Your task to perform on an android device: Set the phone to "Do not disturb". Image 0: 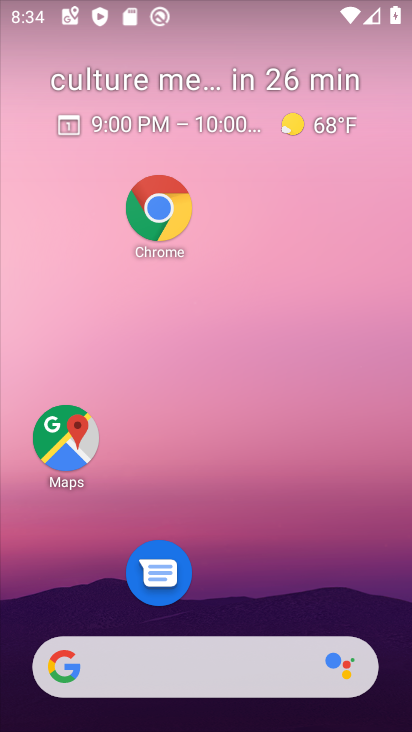
Step 0: drag from (262, 647) to (246, 20)
Your task to perform on an android device: Set the phone to "Do not disturb". Image 1: 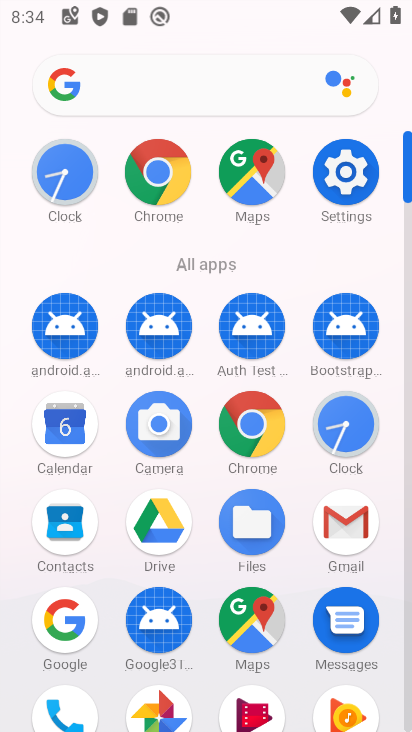
Step 1: click (350, 184)
Your task to perform on an android device: Set the phone to "Do not disturb". Image 2: 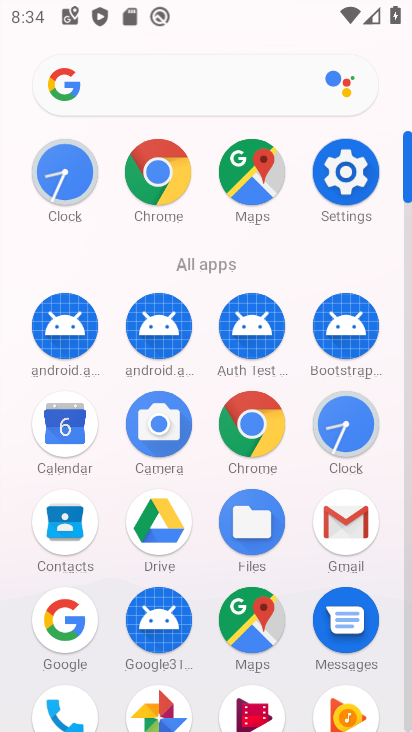
Step 2: click (350, 184)
Your task to perform on an android device: Set the phone to "Do not disturb". Image 3: 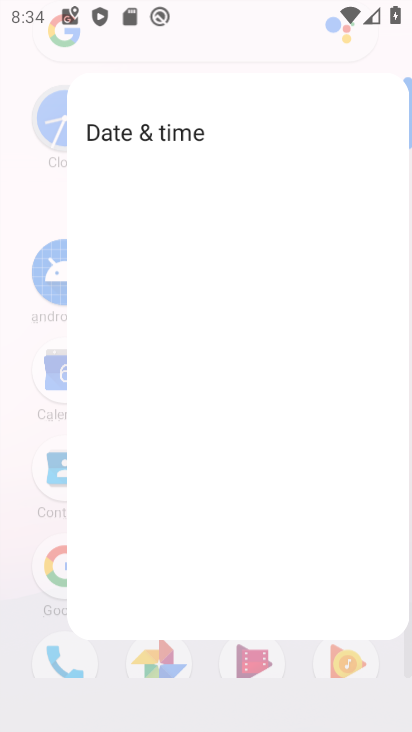
Step 3: click (350, 184)
Your task to perform on an android device: Set the phone to "Do not disturb". Image 4: 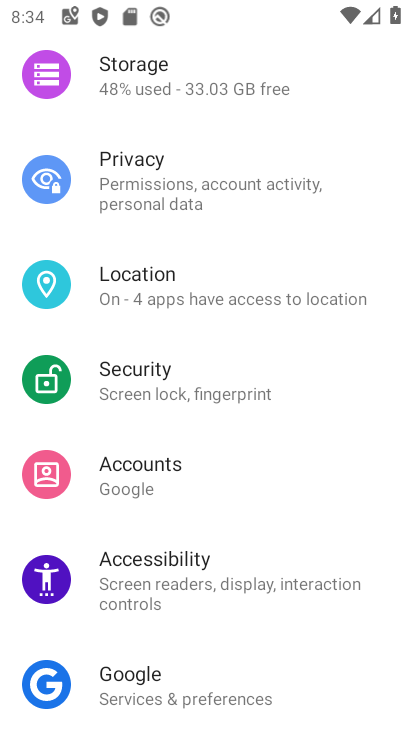
Step 4: click (350, 184)
Your task to perform on an android device: Set the phone to "Do not disturb". Image 5: 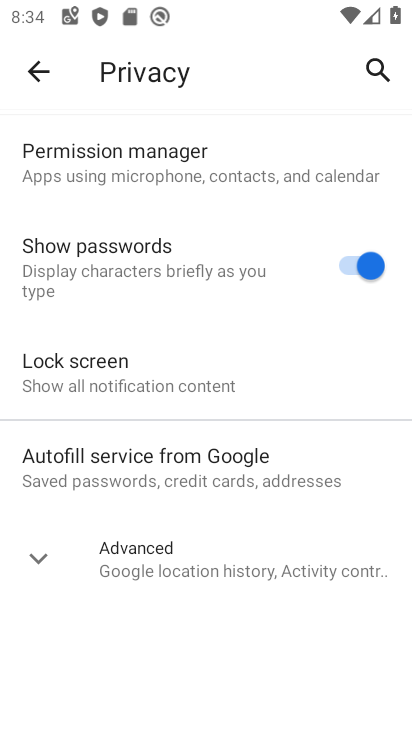
Step 5: click (32, 72)
Your task to perform on an android device: Set the phone to "Do not disturb". Image 6: 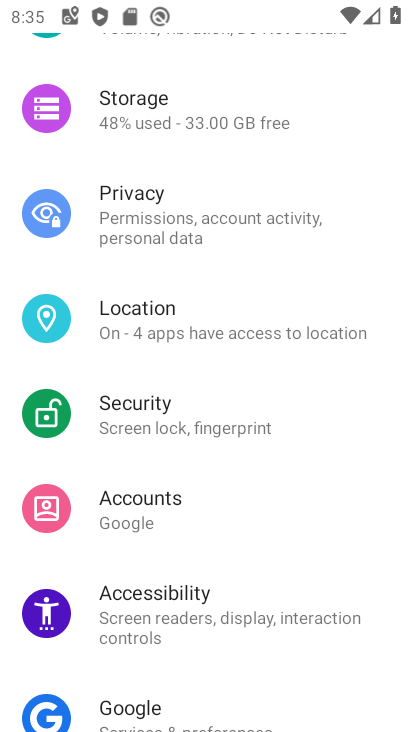
Step 6: drag from (169, 151) to (187, 200)
Your task to perform on an android device: Set the phone to "Do not disturb". Image 7: 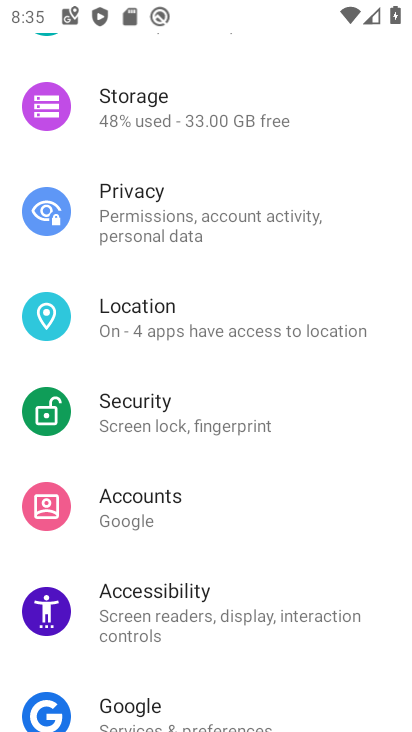
Step 7: click (260, 706)
Your task to perform on an android device: Set the phone to "Do not disturb". Image 8: 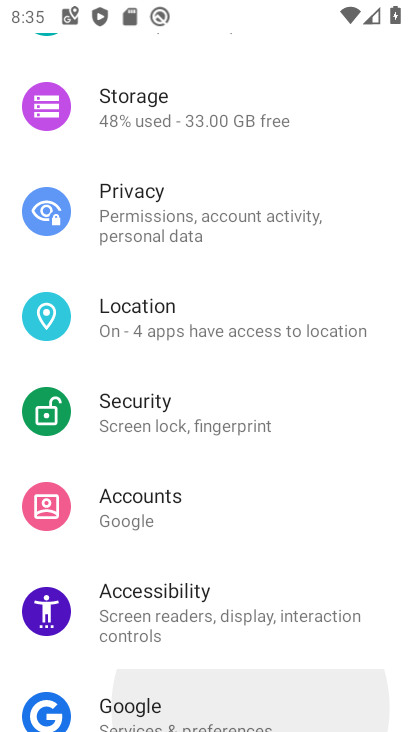
Step 8: click (223, 510)
Your task to perform on an android device: Set the phone to "Do not disturb". Image 9: 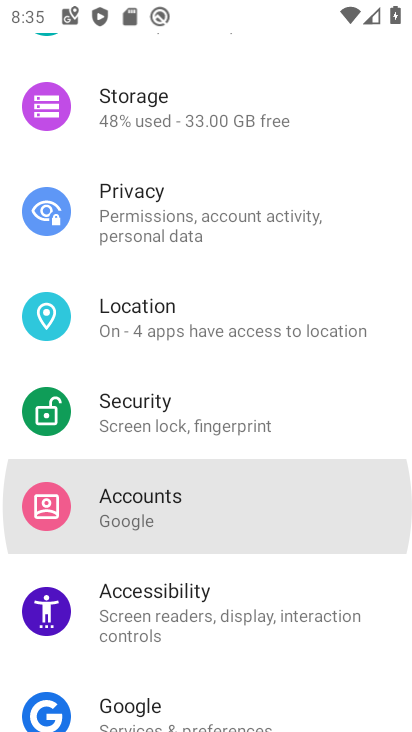
Step 9: drag from (190, 349) to (164, 85)
Your task to perform on an android device: Set the phone to "Do not disturb". Image 10: 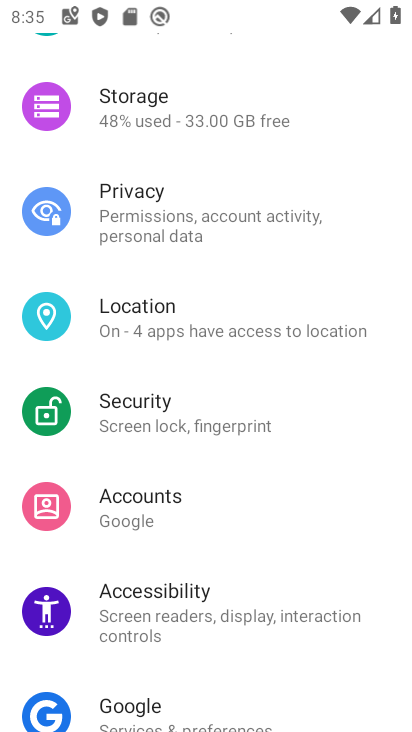
Step 10: drag from (115, 546) to (150, 198)
Your task to perform on an android device: Set the phone to "Do not disturb". Image 11: 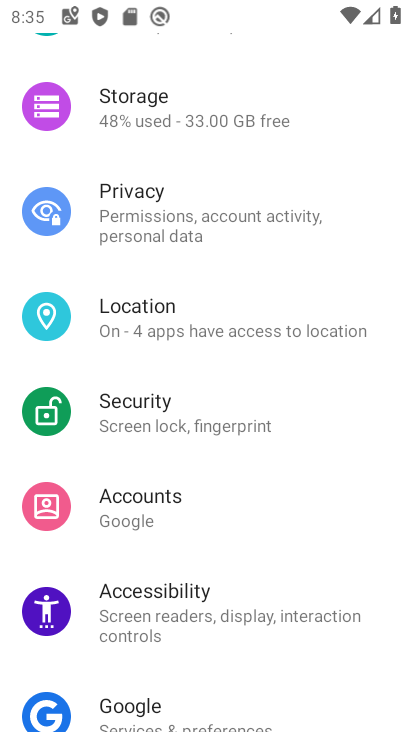
Step 11: drag from (218, 431) to (218, 205)
Your task to perform on an android device: Set the phone to "Do not disturb". Image 12: 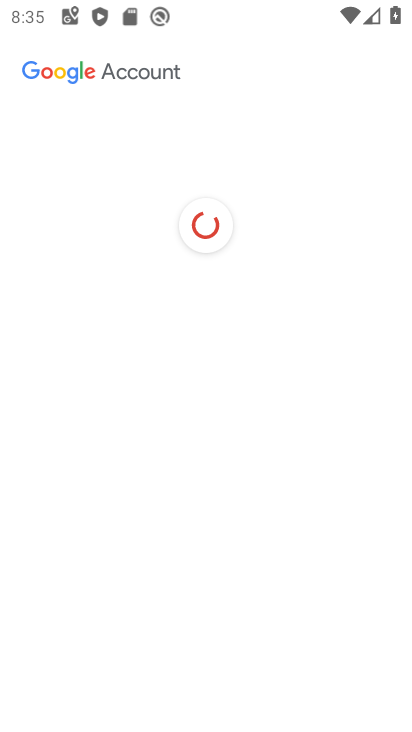
Step 12: press back button
Your task to perform on an android device: Set the phone to "Do not disturb". Image 13: 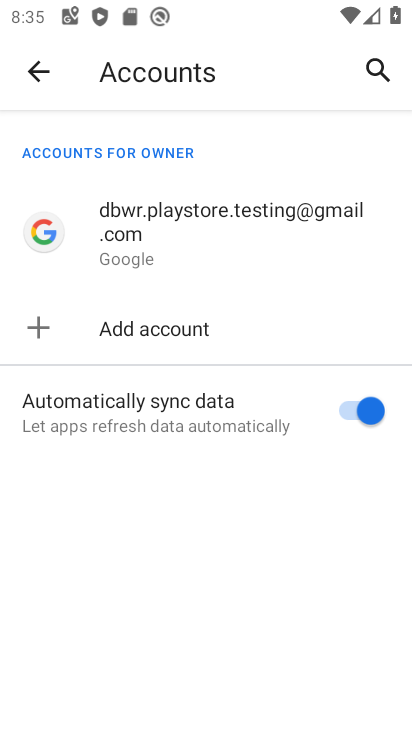
Step 13: press home button
Your task to perform on an android device: Set the phone to "Do not disturb". Image 14: 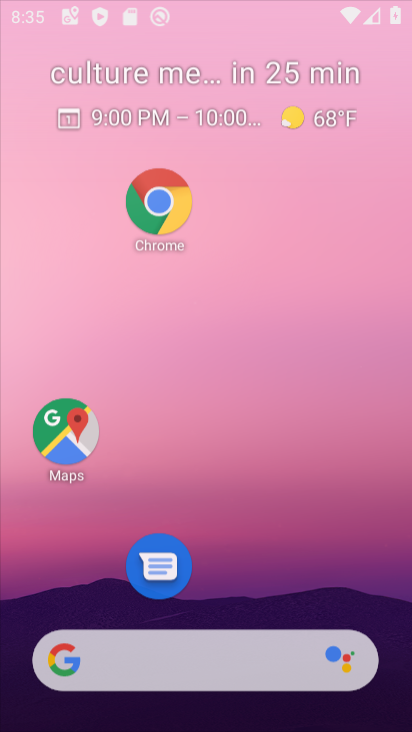
Step 14: click (20, 71)
Your task to perform on an android device: Set the phone to "Do not disturb". Image 15: 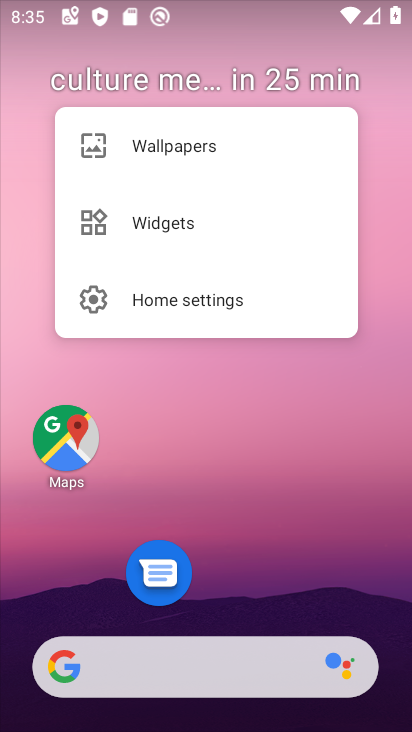
Step 15: drag from (230, 562) to (220, 90)
Your task to perform on an android device: Set the phone to "Do not disturb". Image 16: 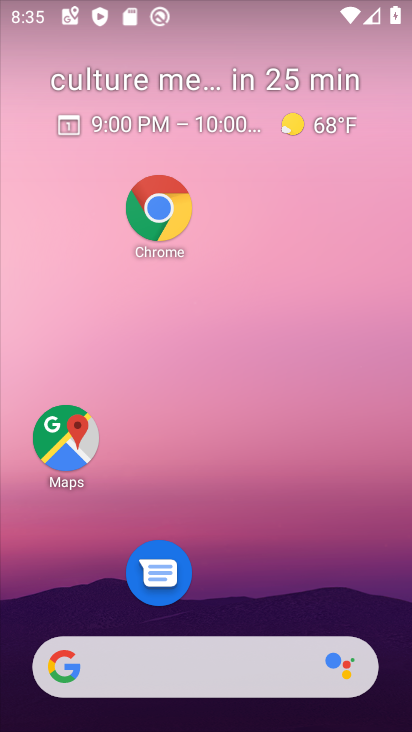
Step 16: drag from (232, 595) to (223, 103)
Your task to perform on an android device: Set the phone to "Do not disturb". Image 17: 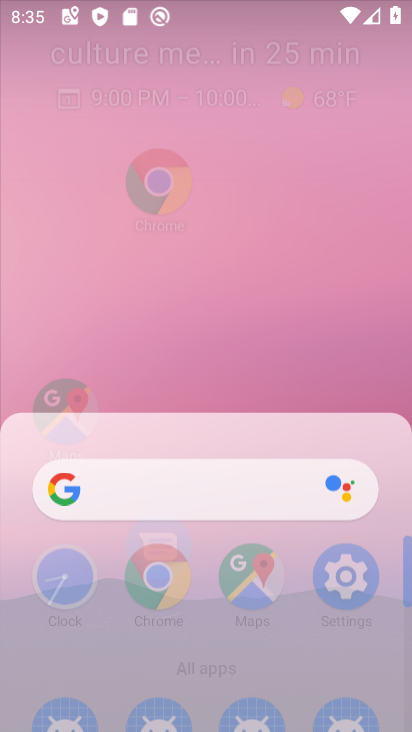
Step 17: drag from (242, 310) to (232, 80)
Your task to perform on an android device: Set the phone to "Do not disturb". Image 18: 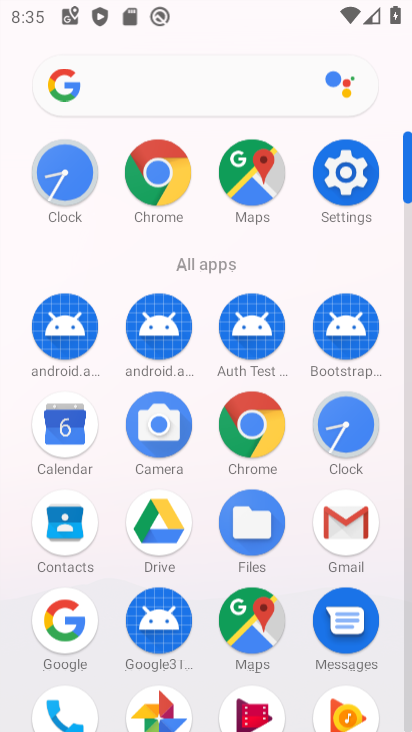
Step 18: drag from (225, 556) to (213, 39)
Your task to perform on an android device: Set the phone to "Do not disturb". Image 19: 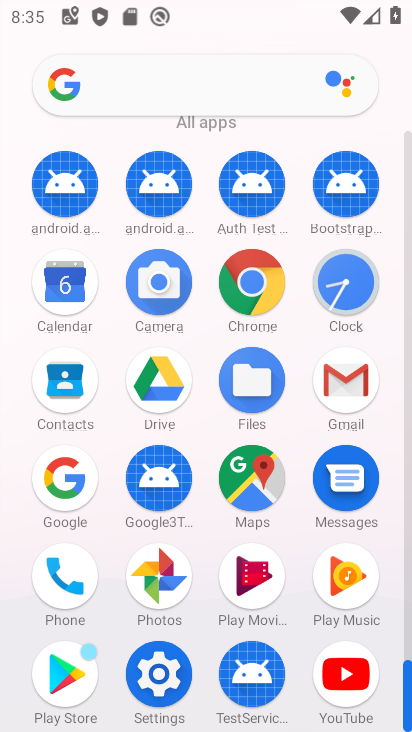
Step 19: click (159, 673)
Your task to perform on an android device: Set the phone to "Do not disturb". Image 20: 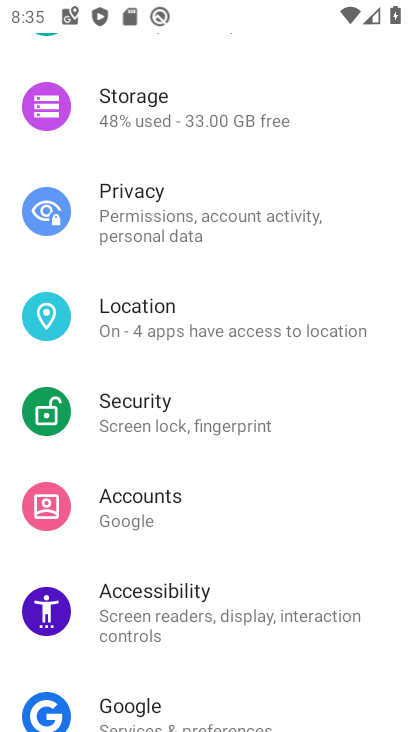
Step 20: drag from (91, 40) to (152, 483)
Your task to perform on an android device: Set the phone to "Do not disturb". Image 21: 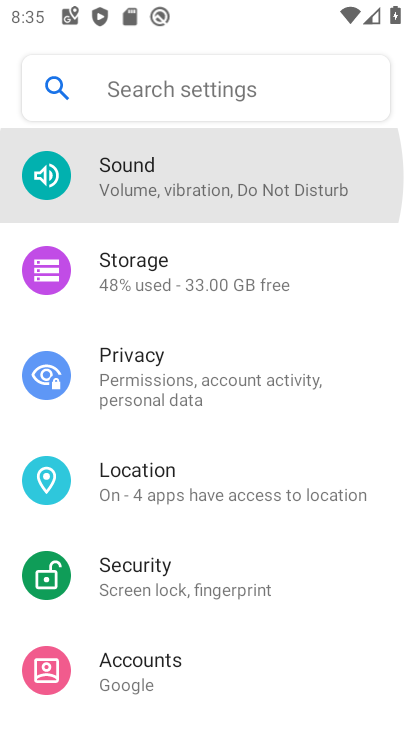
Step 21: drag from (183, 197) to (188, 563)
Your task to perform on an android device: Set the phone to "Do not disturb". Image 22: 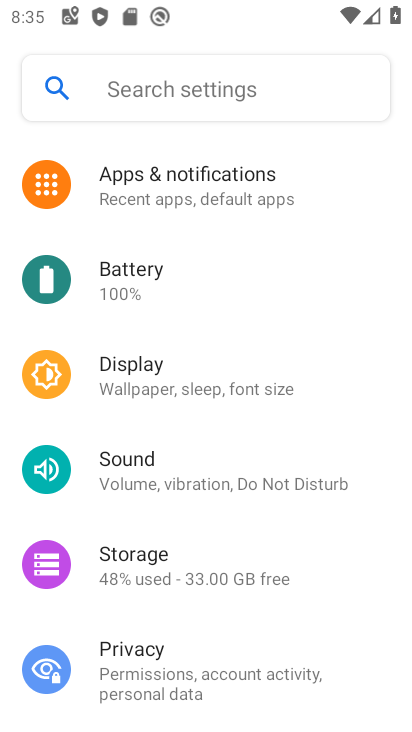
Step 22: drag from (144, 138) to (182, 376)
Your task to perform on an android device: Set the phone to "Do not disturb". Image 23: 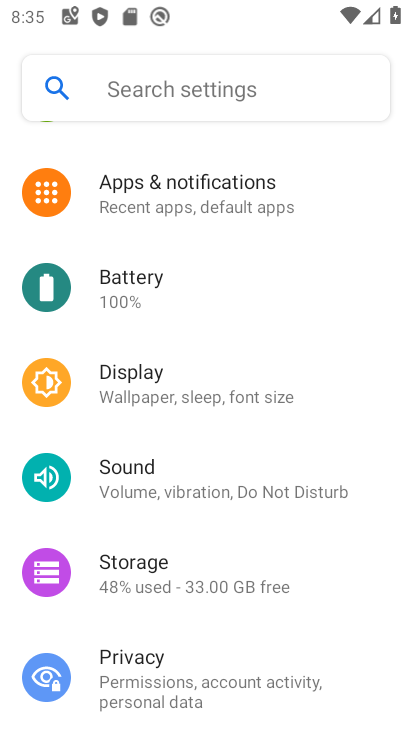
Step 23: click (152, 481)
Your task to perform on an android device: Set the phone to "Do not disturb". Image 24: 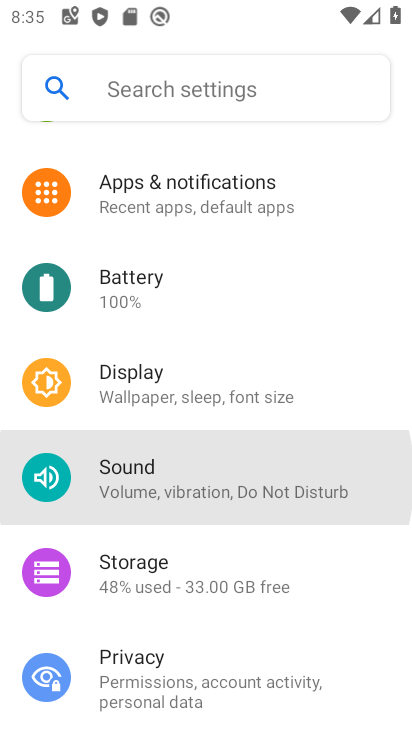
Step 24: click (152, 481)
Your task to perform on an android device: Set the phone to "Do not disturb". Image 25: 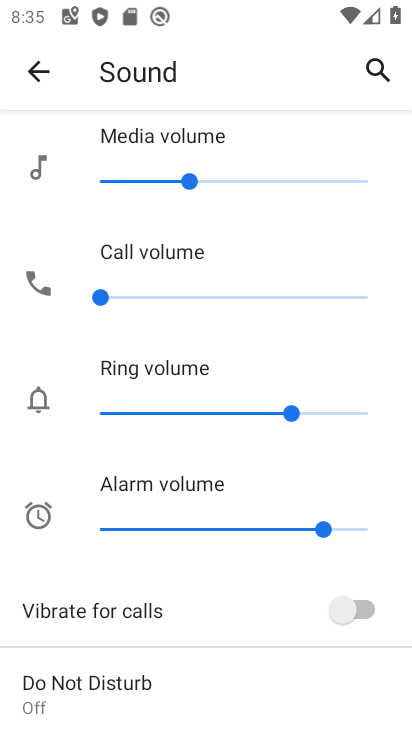
Step 25: click (75, 694)
Your task to perform on an android device: Set the phone to "Do not disturb". Image 26: 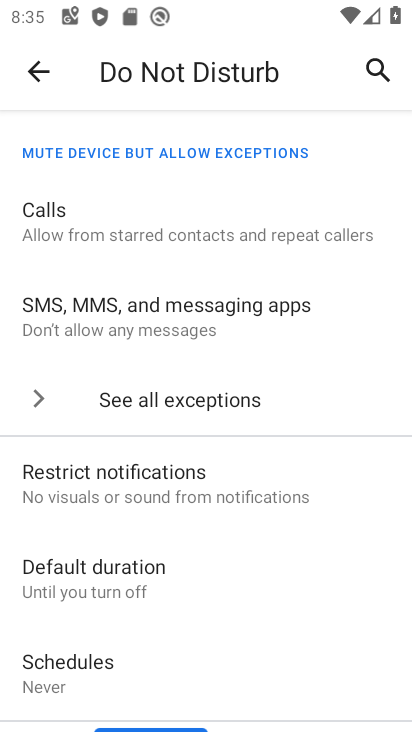
Step 26: drag from (118, 600) to (162, 75)
Your task to perform on an android device: Set the phone to "Do not disturb". Image 27: 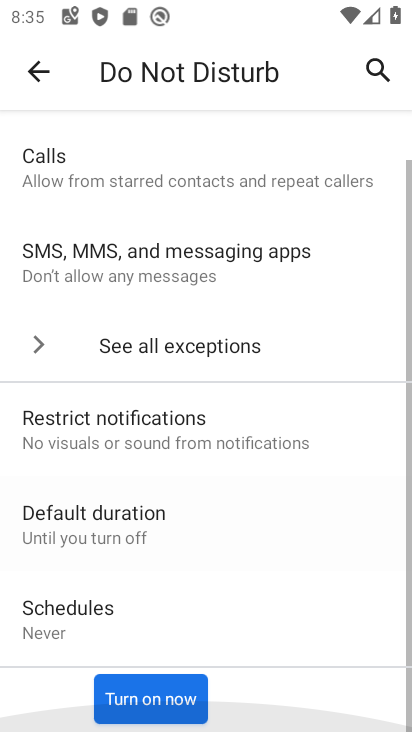
Step 27: drag from (226, 438) to (210, 338)
Your task to perform on an android device: Set the phone to "Do not disturb". Image 28: 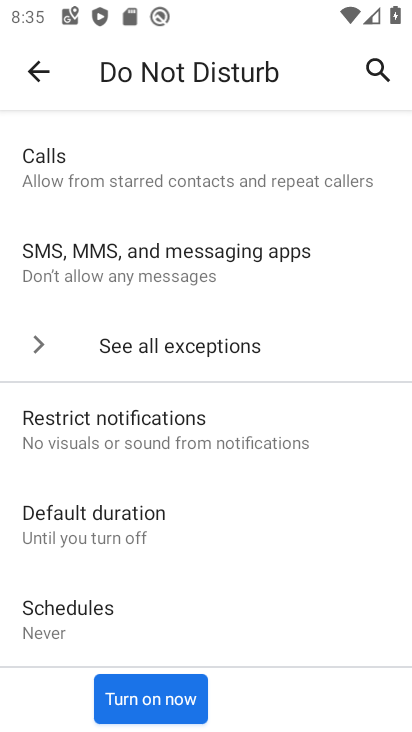
Step 28: click (191, 699)
Your task to perform on an android device: Set the phone to "Do not disturb". Image 29: 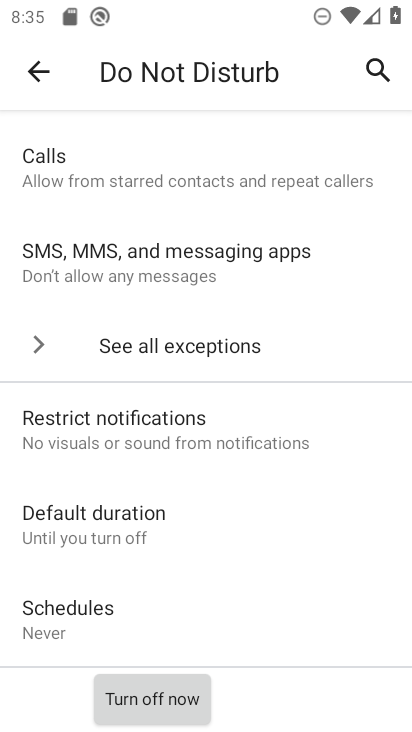
Step 29: task complete